Your task to perform on an android device: empty trash in the gmail app Image 0: 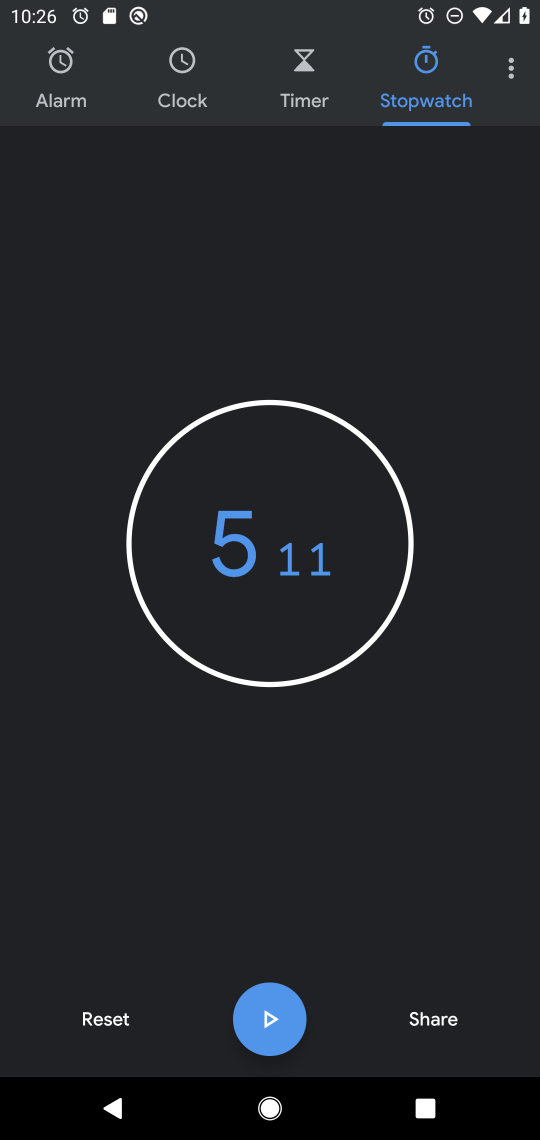
Step 0: press home button
Your task to perform on an android device: empty trash in the gmail app Image 1: 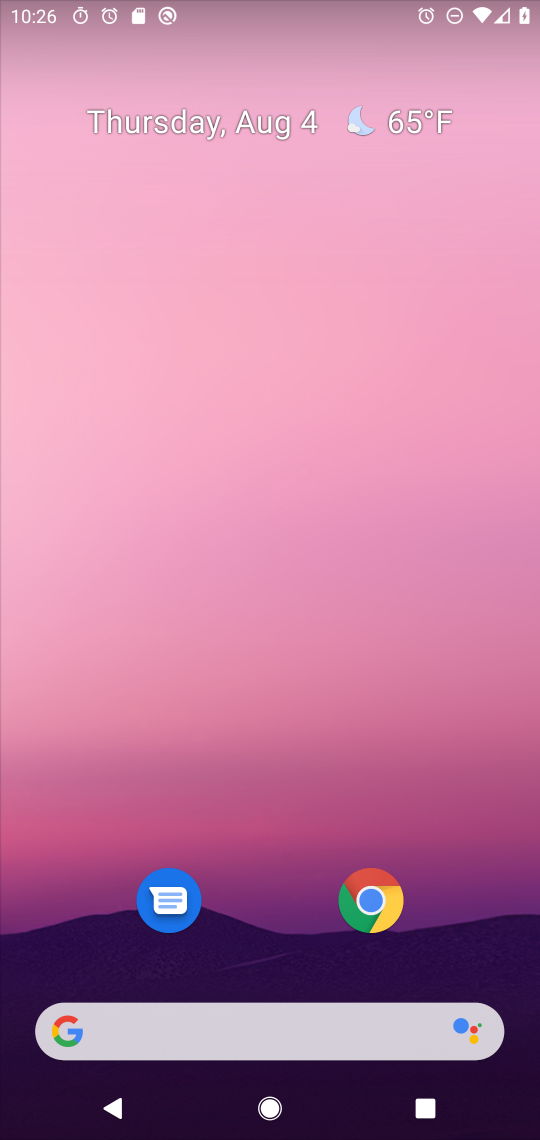
Step 1: drag from (247, 1028) to (356, 3)
Your task to perform on an android device: empty trash in the gmail app Image 2: 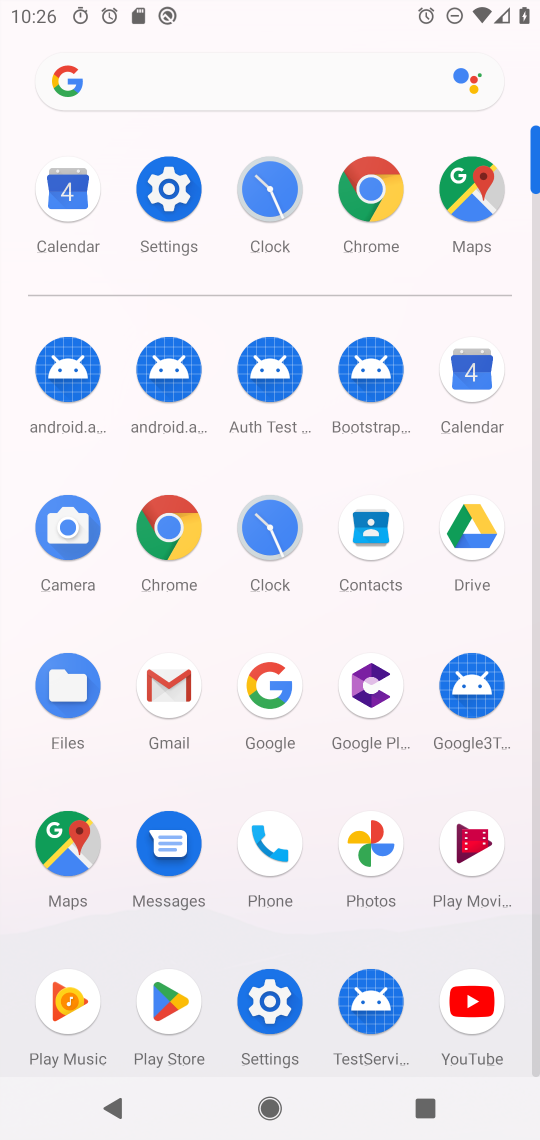
Step 2: click (169, 679)
Your task to perform on an android device: empty trash in the gmail app Image 3: 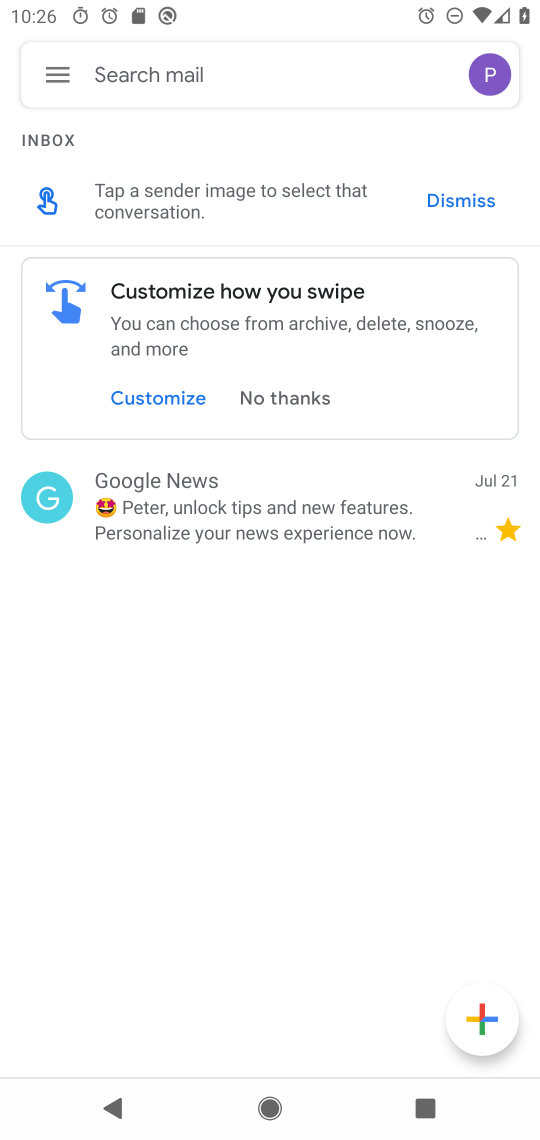
Step 3: click (64, 65)
Your task to perform on an android device: empty trash in the gmail app Image 4: 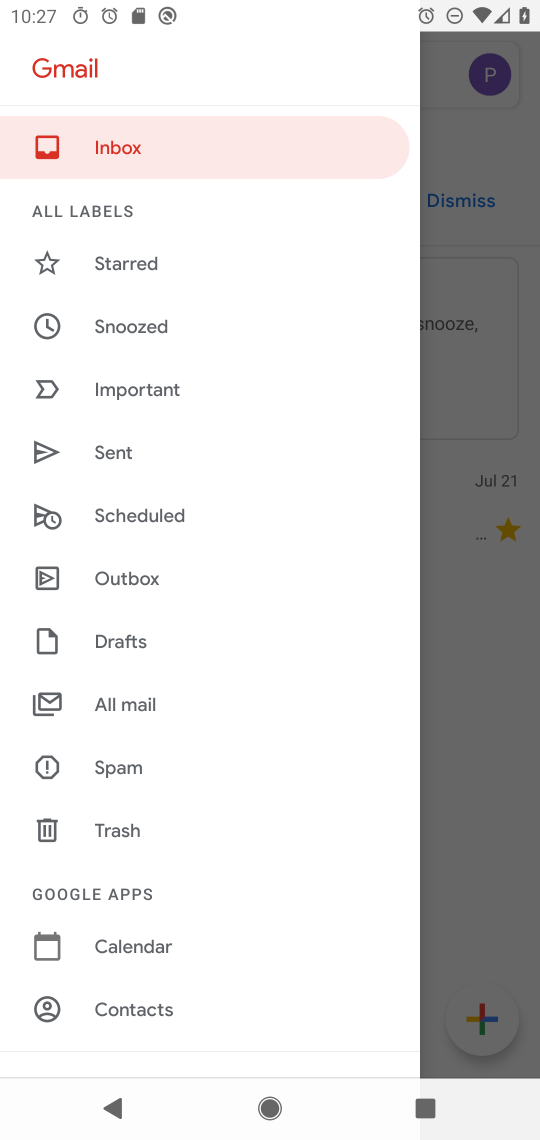
Step 4: click (112, 831)
Your task to perform on an android device: empty trash in the gmail app Image 5: 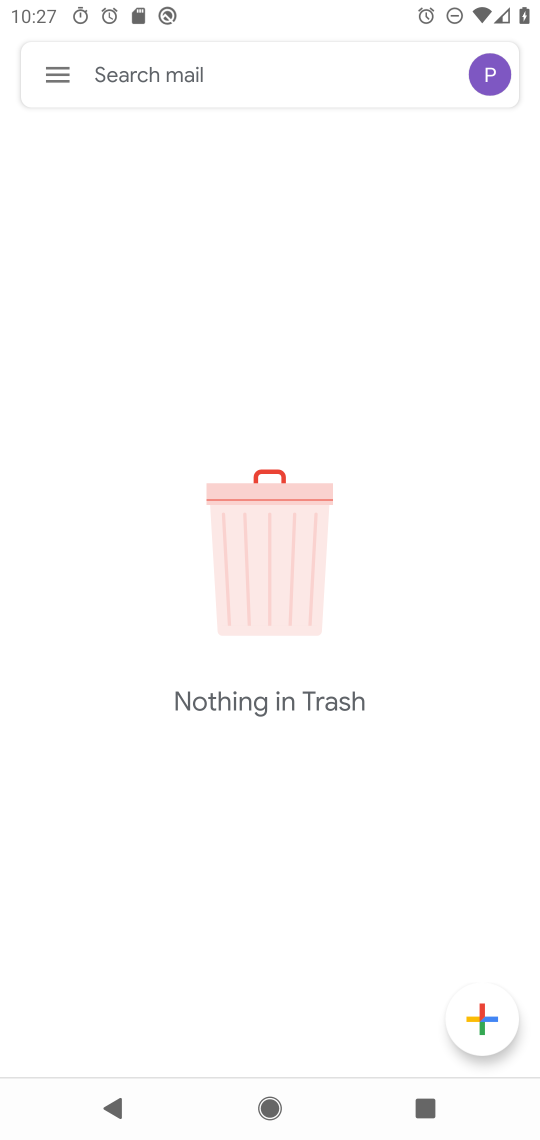
Step 5: task complete